Your task to perform on an android device: change notifications settings Image 0: 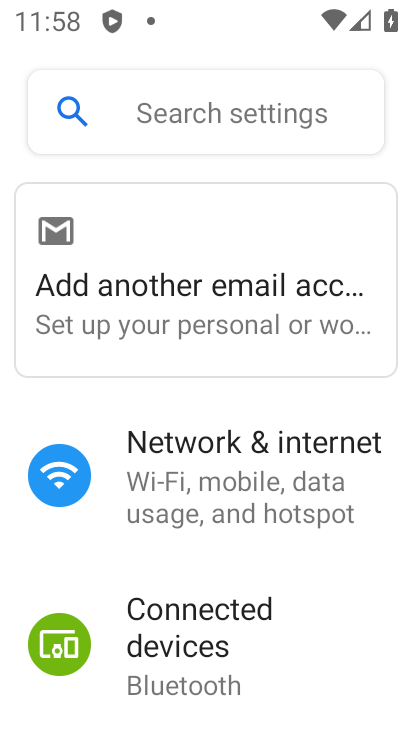
Step 0: drag from (159, 591) to (240, 31)
Your task to perform on an android device: change notifications settings Image 1: 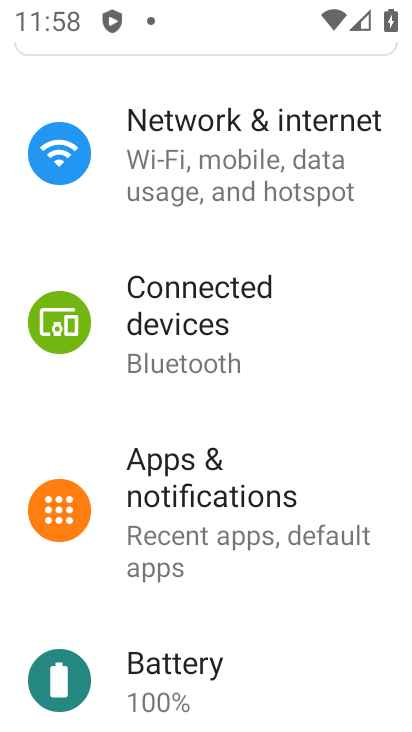
Step 1: click (191, 470)
Your task to perform on an android device: change notifications settings Image 2: 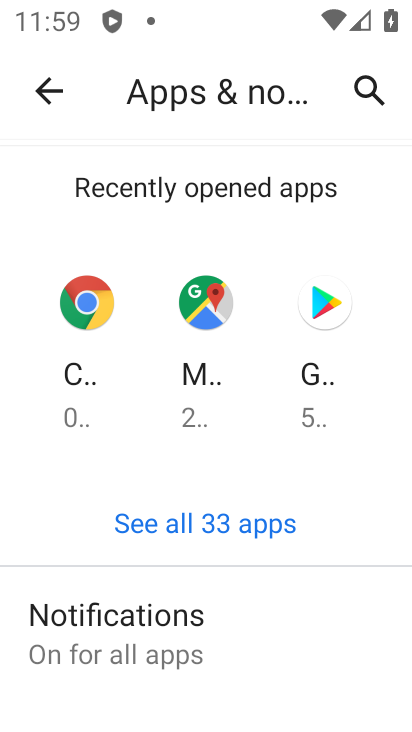
Step 2: click (121, 669)
Your task to perform on an android device: change notifications settings Image 3: 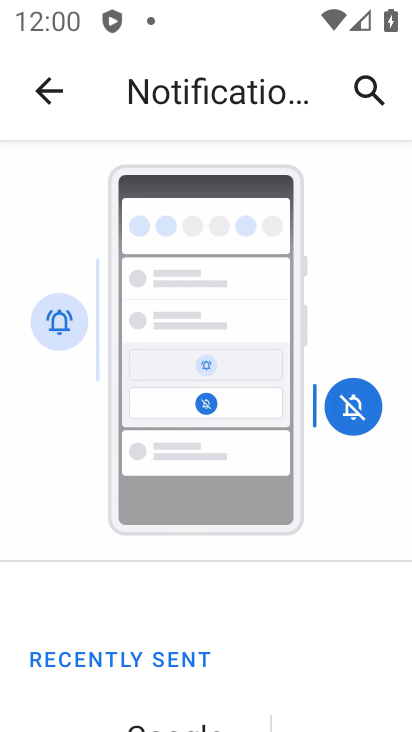
Step 3: drag from (190, 531) to (252, 92)
Your task to perform on an android device: change notifications settings Image 4: 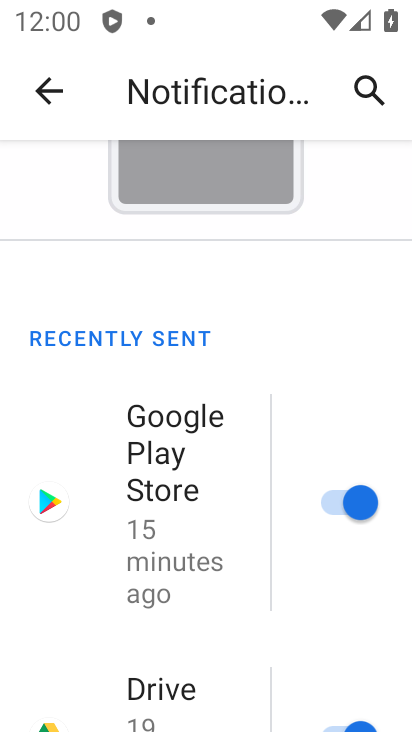
Step 4: drag from (211, 604) to (247, 301)
Your task to perform on an android device: change notifications settings Image 5: 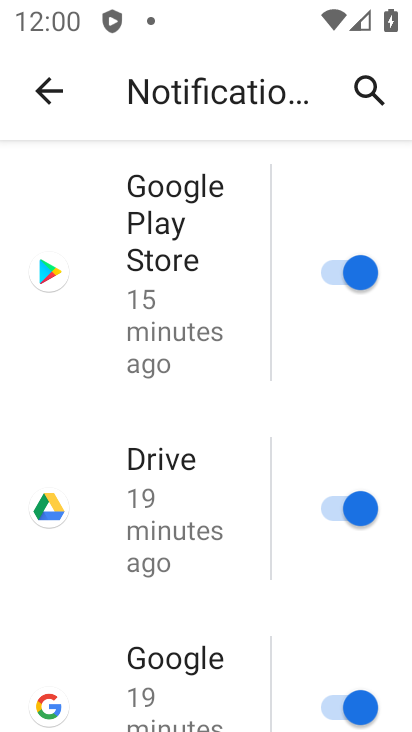
Step 5: drag from (126, 656) to (223, 182)
Your task to perform on an android device: change notifications settings Image 6: 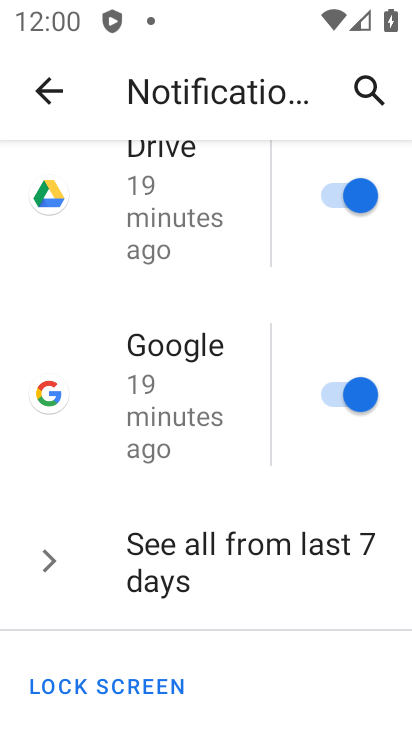
Step 6: drag from (116, 694) to (174, 377)
Your task to perform on an android device: change notifications settings Image 7: 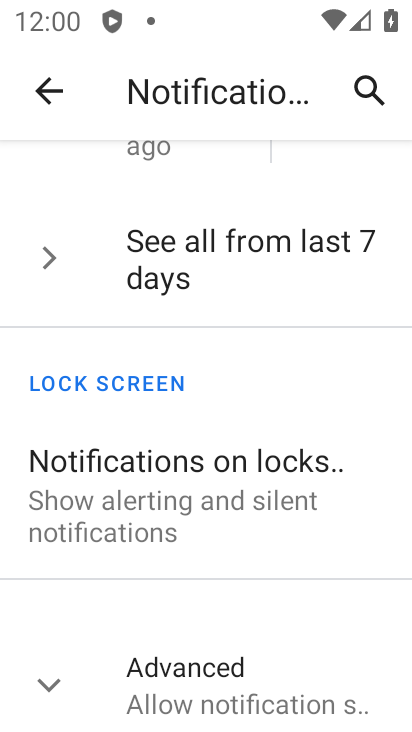
Step 7: click (235, 647)
Your task to perform on an android device: change notifications settings Image 8: 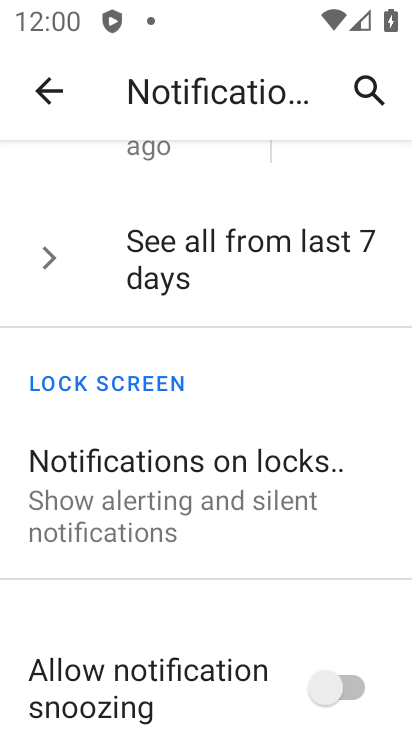
Step 8: drag from (211, 520) to (247, 209)
Your task to perform on an android device: change notifications settings Image 9: 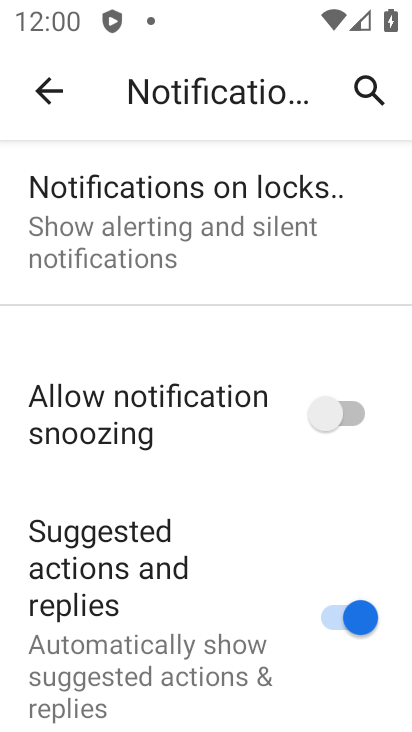
Step 9: click (343, 409)
Your task to perform on an android device: change notifications settings Image 10: 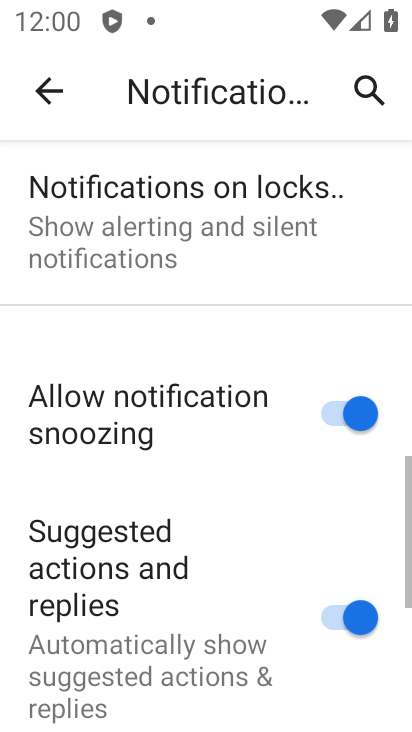
Step 10: click (351, 634)
Your task to perform on an android device: change notifications settings Image 11: 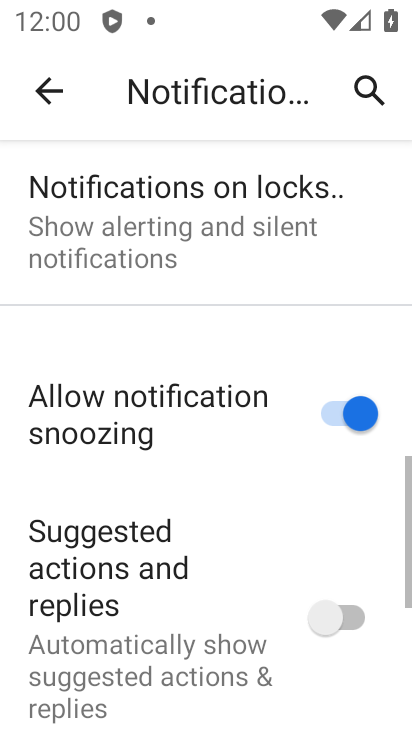
Step 11: task complete